Your task to perform on an android device: Is it going to rain today? Image 0: 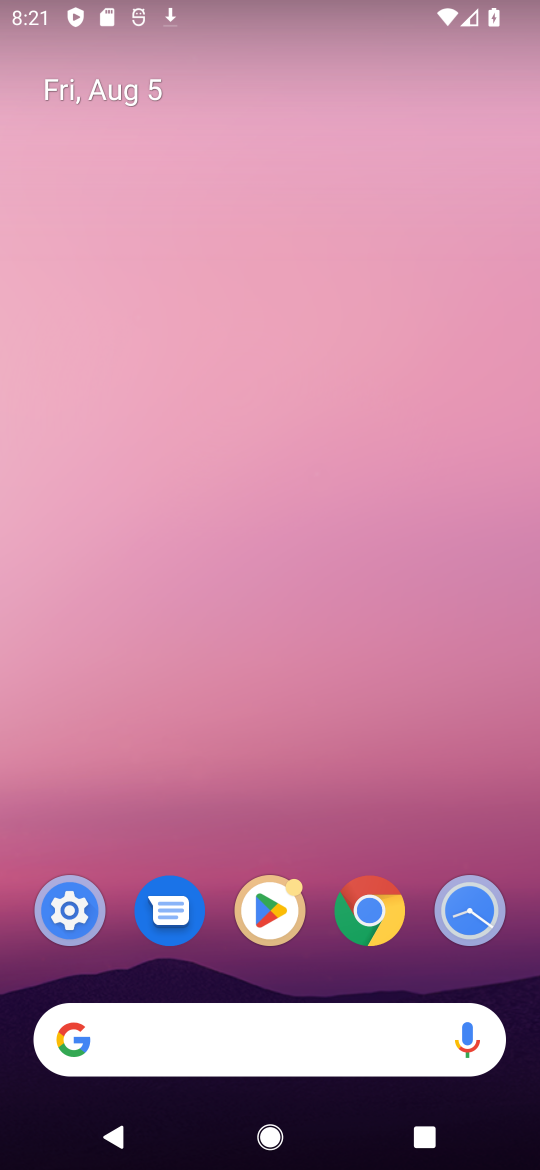
Step 0: click (174, 1031)
Your task to perform on an android device: Is it going to rain today? Image 1: 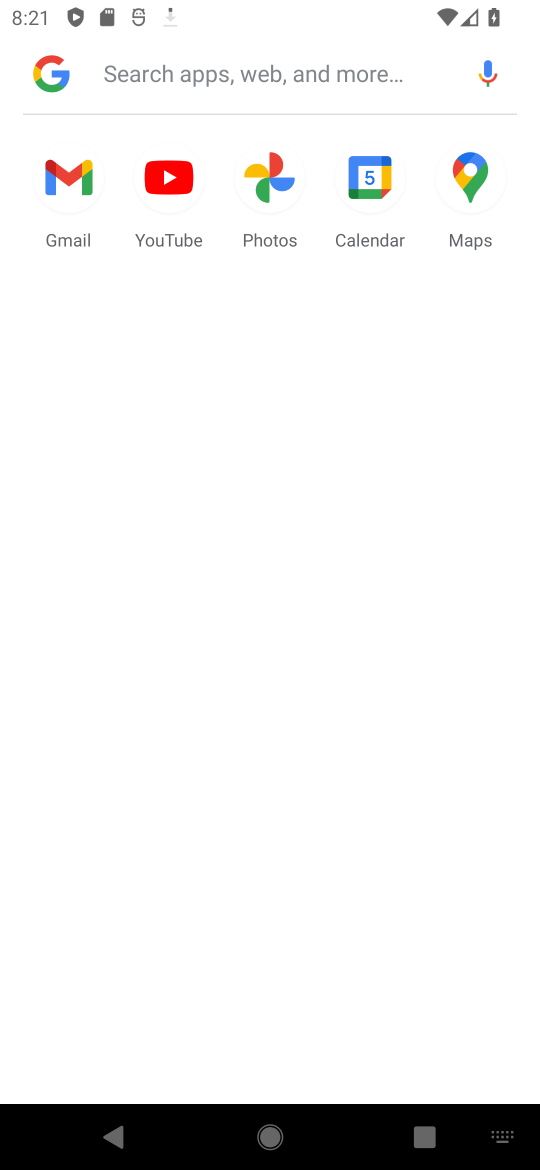
Step 1: click (193, 70)
Your task to perform on an android device: Is it going to rain today? Image 2: 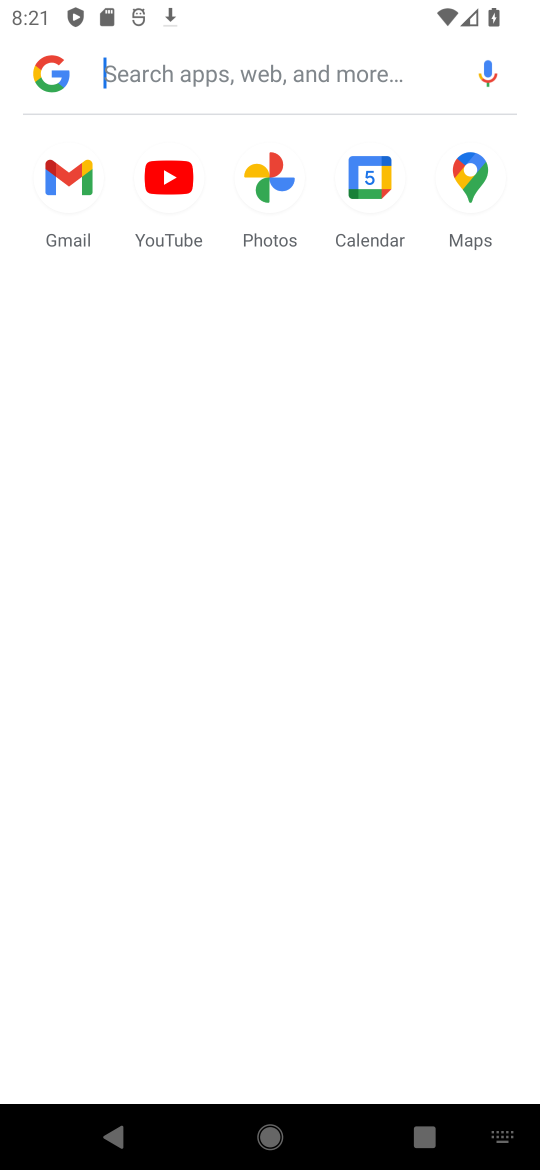
Step 2: press home button
Your task to perform on an android device: Is it going to rain today? Image 3: 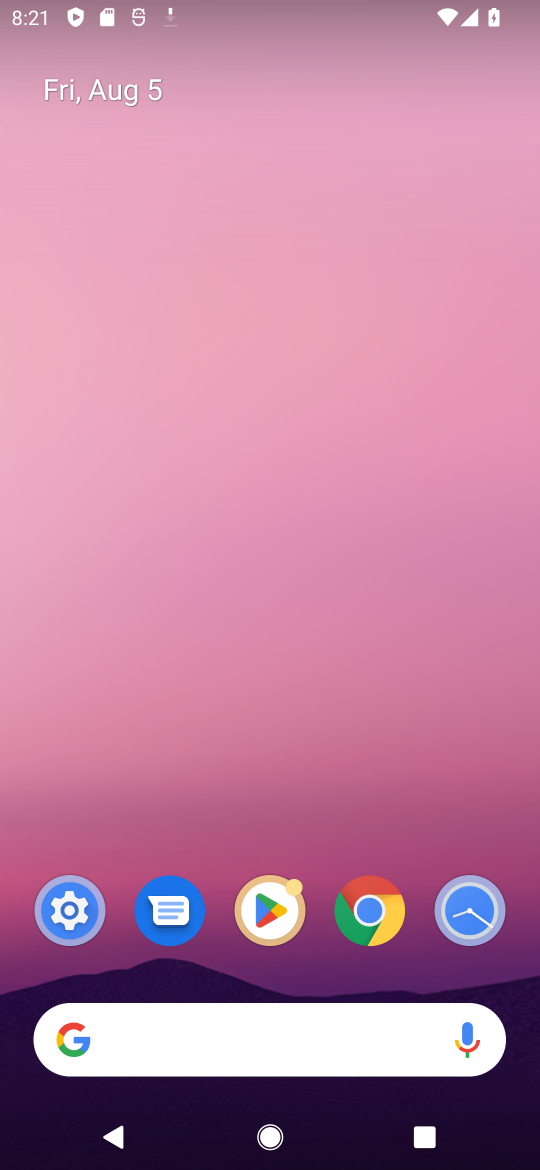
Step 3: click (196, 1040)
Your task to perform on an android device: Is it going to rain today? Image 4: 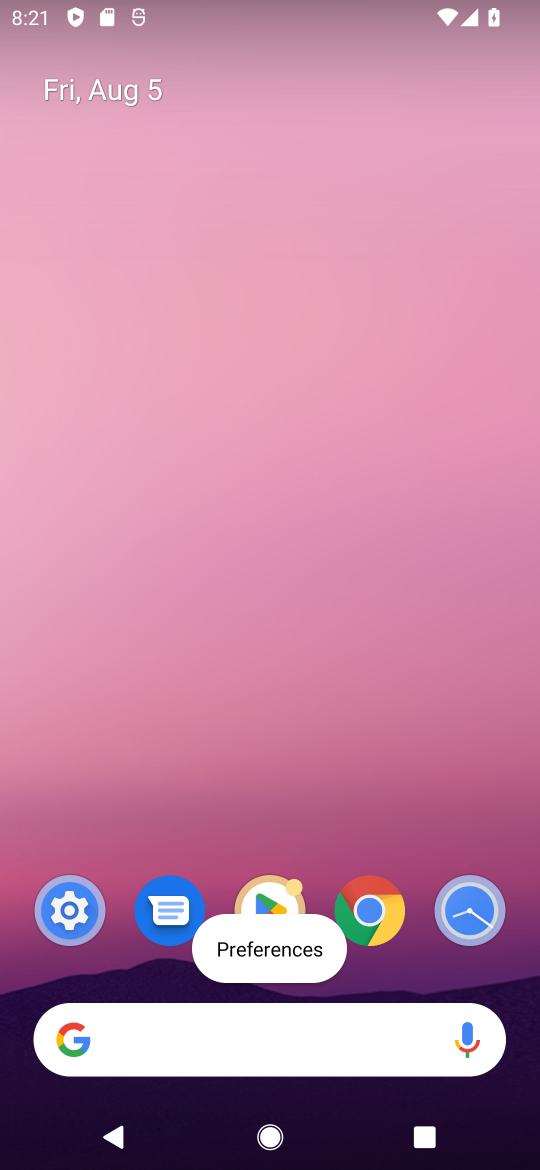
Step 4: click (148, 1031)
Your task to perform on an android device: Is it going to rain today? Image 5: 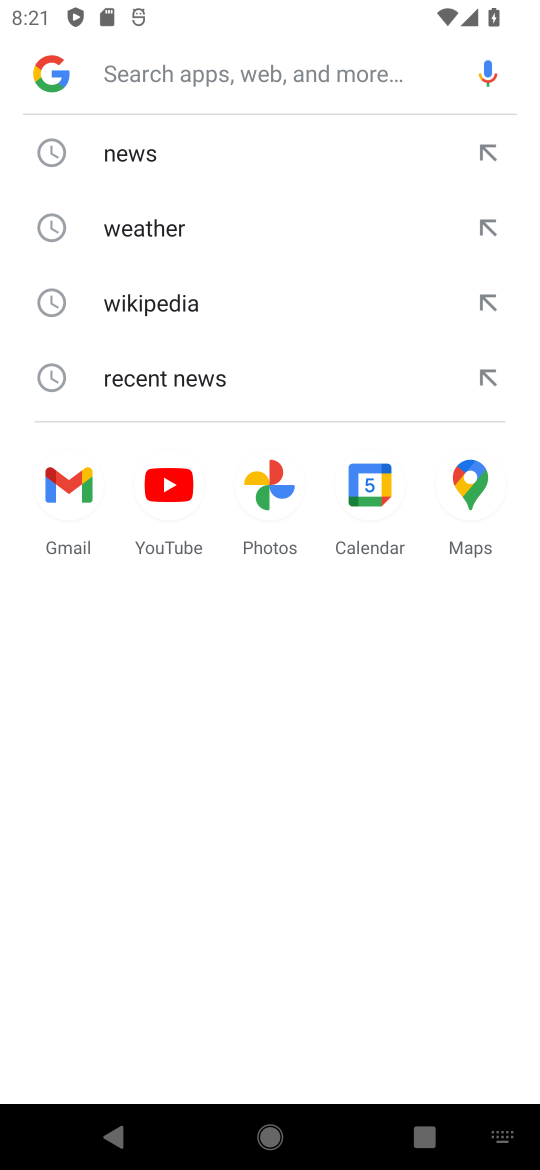
Step 5: click (141, 245)
Your task to perform on an android device: Is it going to rain today? Image 6: 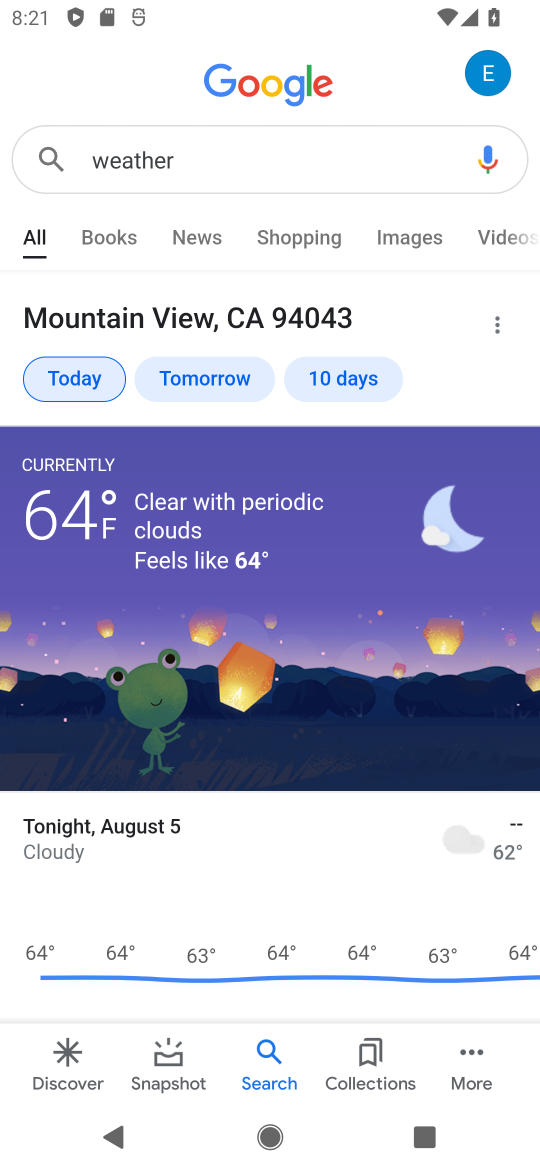
Step 6: task complete